Your task to perform on an android device: Open a new Chrome private window Image 0: 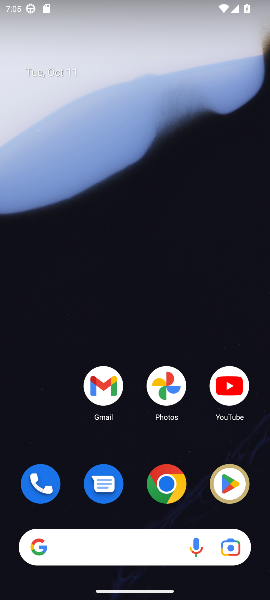
Step 0: click (167, 481)
Your task to perform on an android device: Open a new Chrome private window Image 1: 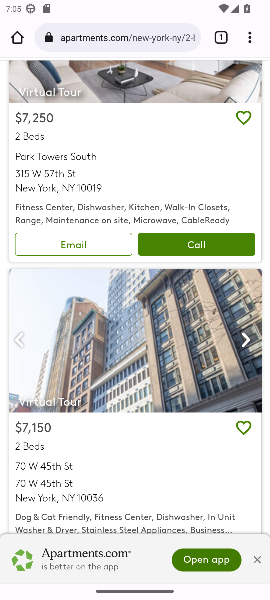
Step 1: task complete